Your task to perform on an android device: Search for sushi restaurants on Maps Image 0: 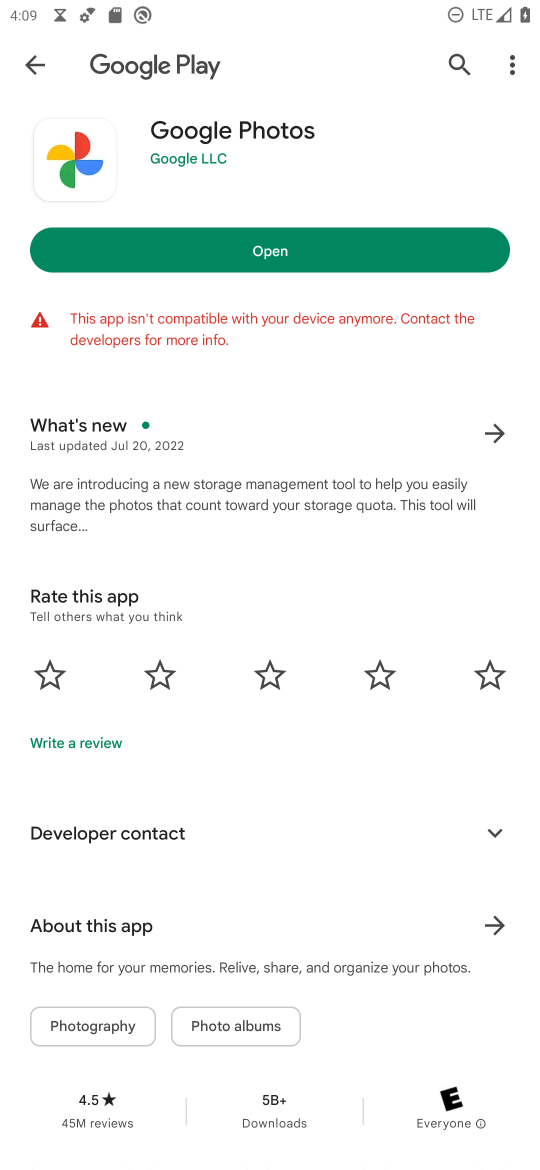
Step 0: press home button
Your task to perform on an android device: Search for sushi restaurants on Maps Image 1: 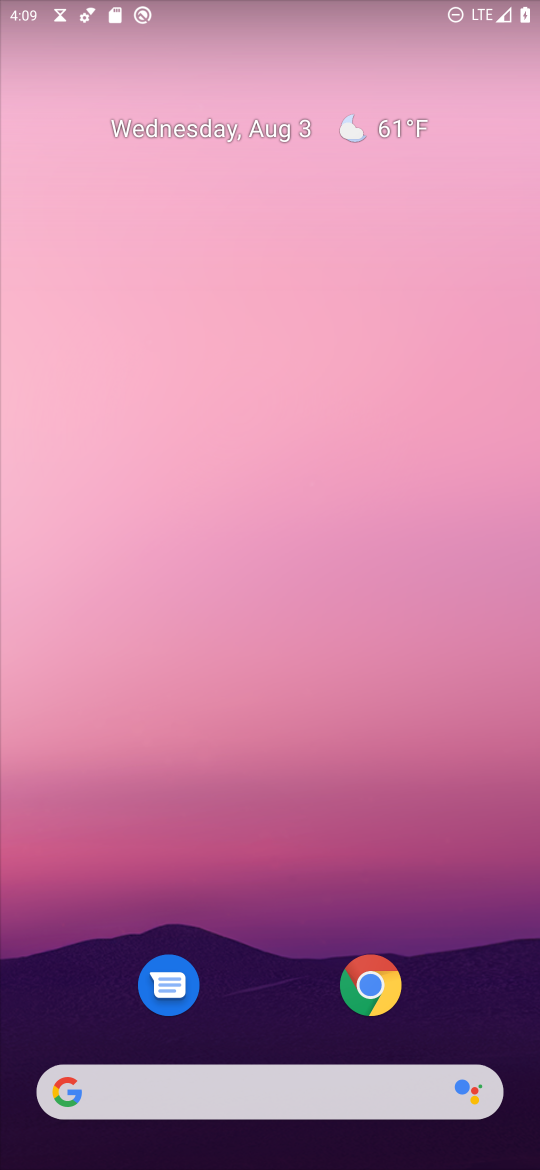
Step 1: drag from (277, 1013) to (432, 4)
Your task to perform on an android device: Search for sushi restaurants on Maps Image 2: 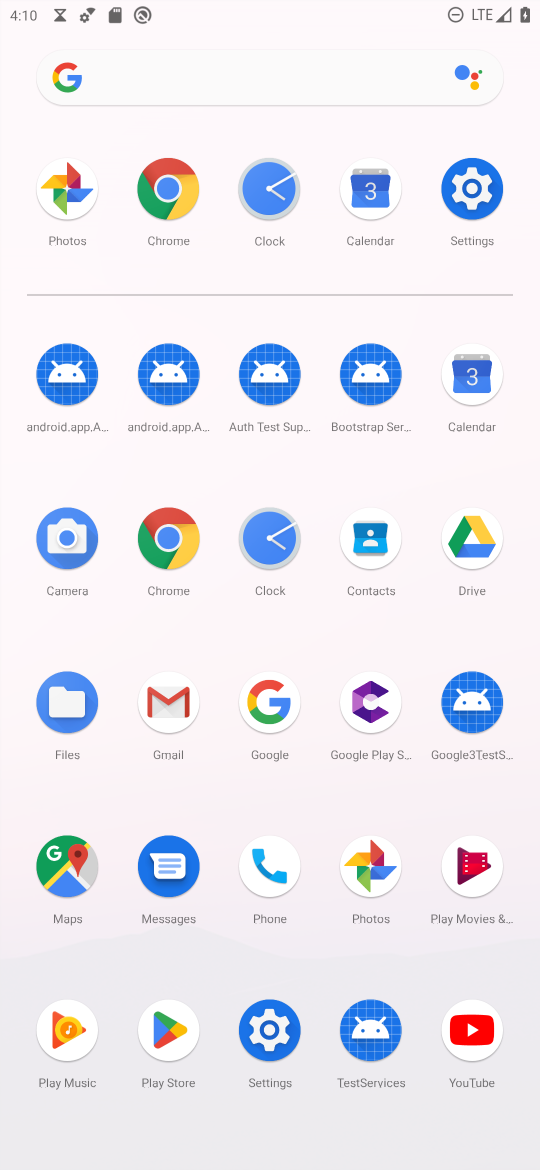
Step 2: click (63, 880)
Your task to perform on an android device: Search for sushi restaurants on Maps Image 3: 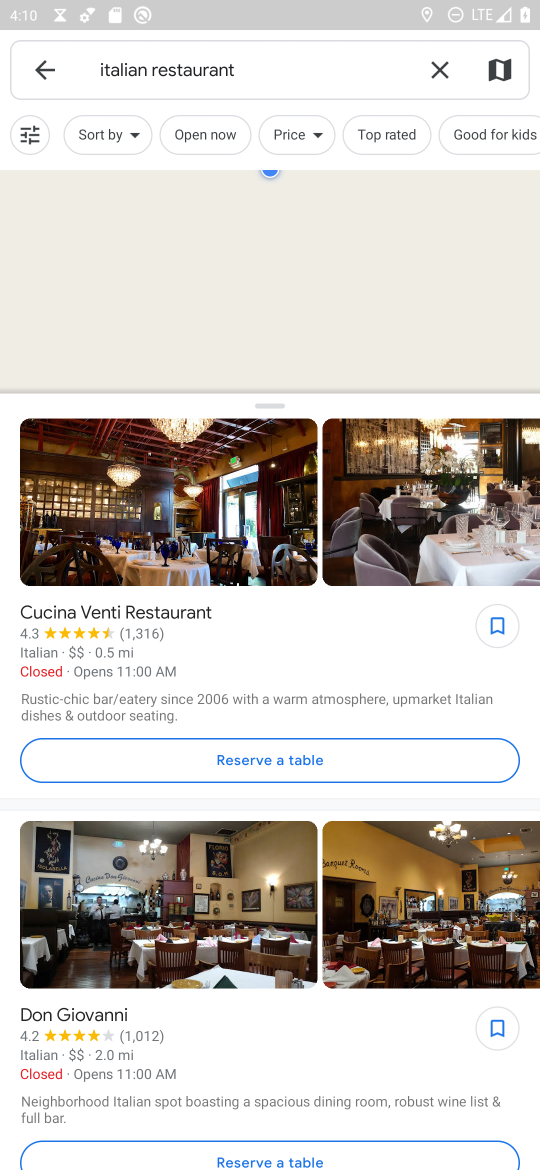
Step 3: click (440, 70)
Your task to perform on an android device: Search for sushi restaurants on Maps Image 4: 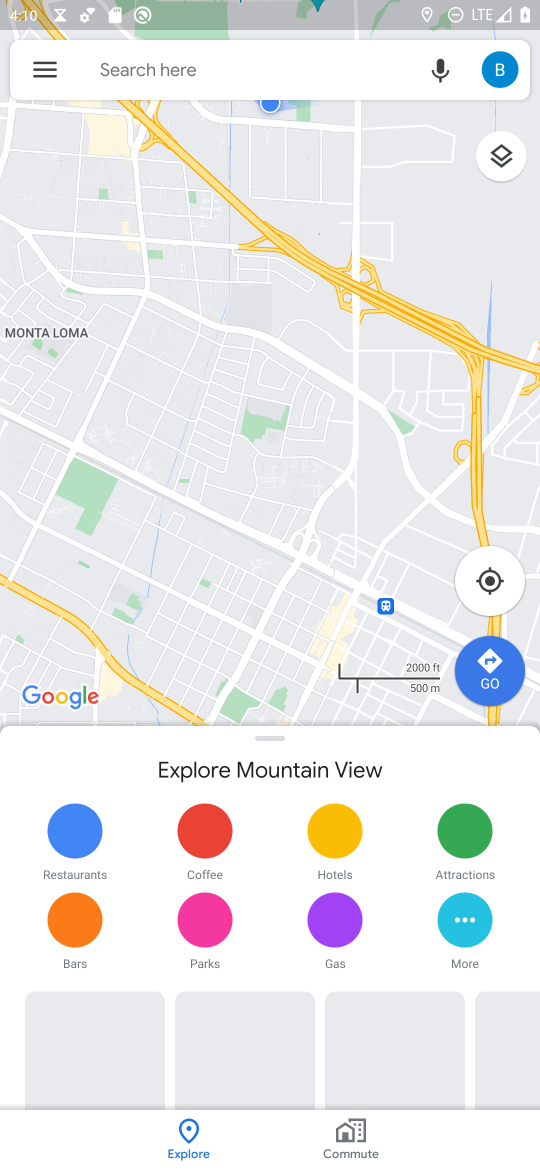
Step 4: click (336, 61)
Your task to perform on an android device: Search for sushi restaurants on Maps Image 5: 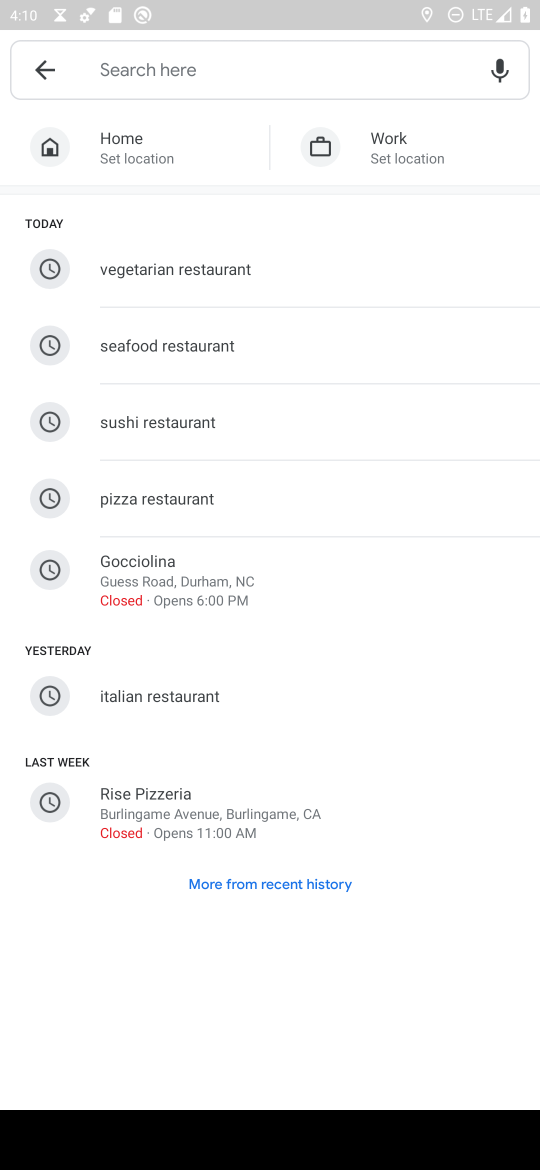
Step 5: type "sushi restaurants"
Your task to perform on an android device: Search for sushi restaurants on Maps Image 6: 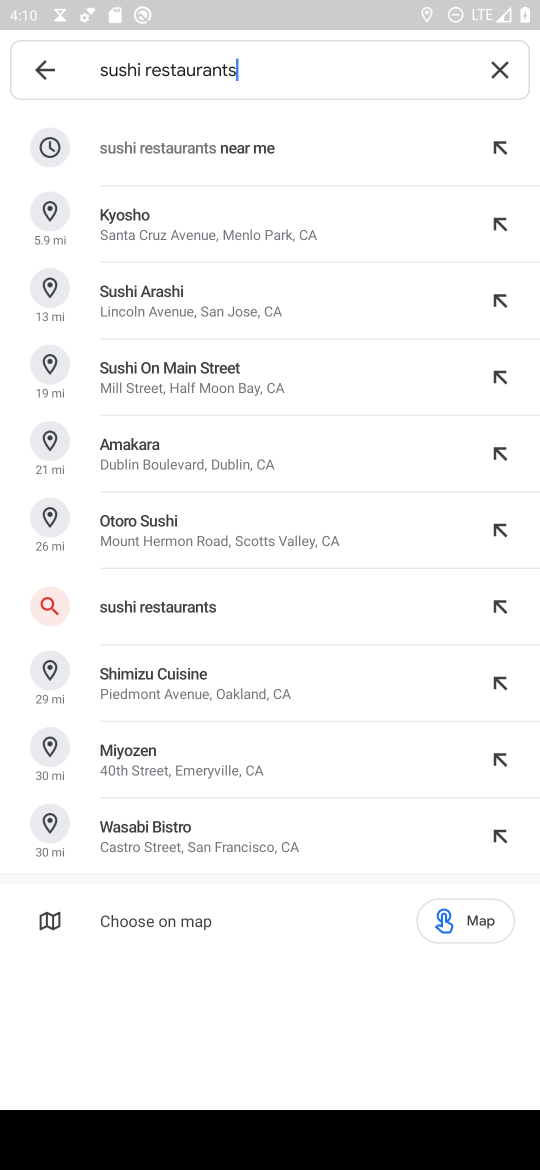
Step 6: click (192, 604)
Your task to perform on an android device: Search for sushi restaurants on Maps Image 7: 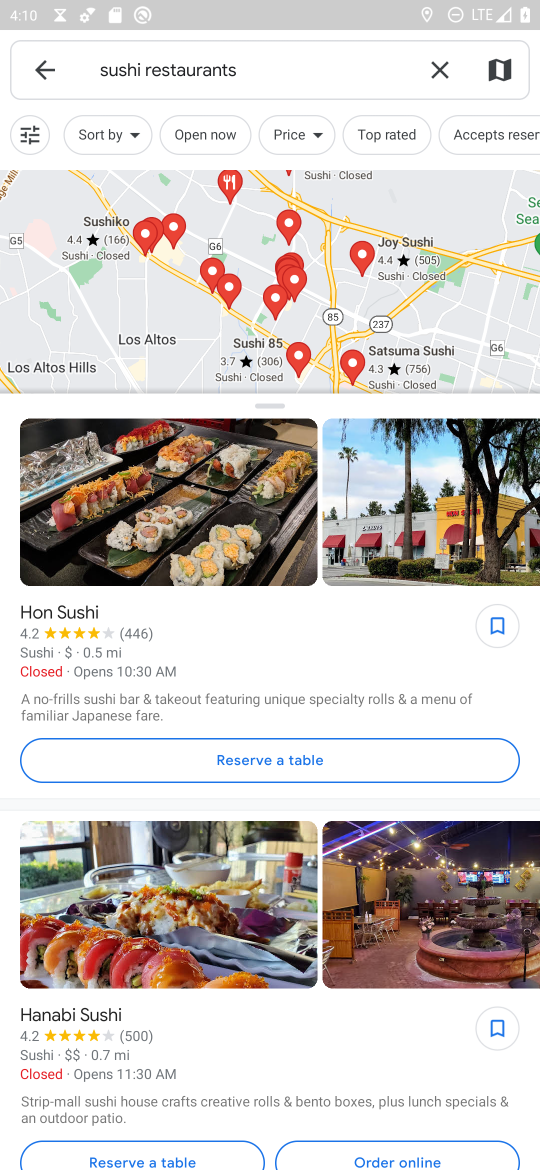
Step 7: task complete